Your task to perform on an android device: What is the recent news? Image 0: 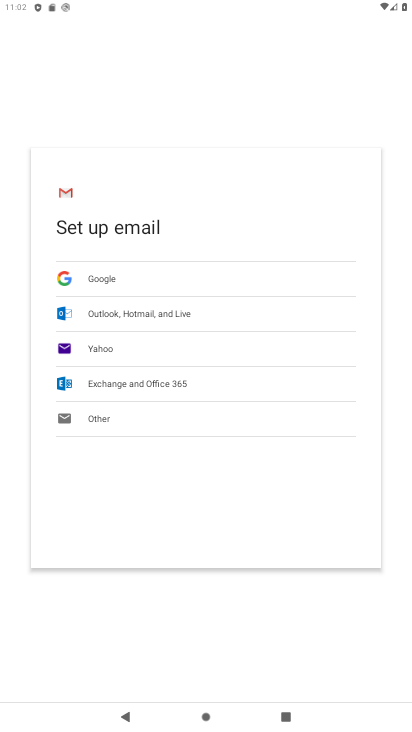
Step 0: press home button
Your task to perform on an android device: What is the recent news? Image 1: 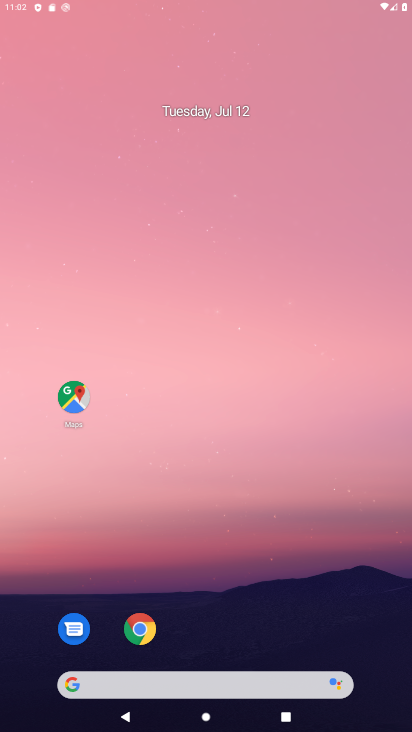
Step 1: drag from (328, 544) to (360, 129)
Your task to perform on an android device: What is the recent news? Image 2: 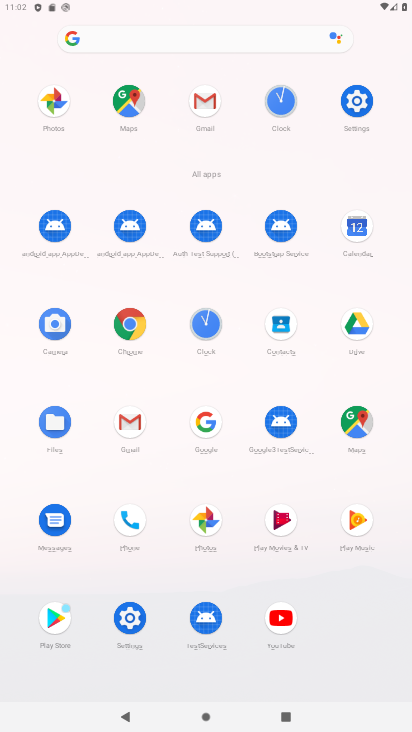
Step 2: click (131, 323)
Your task to perform on an android device: What is the recent news? Image 3: 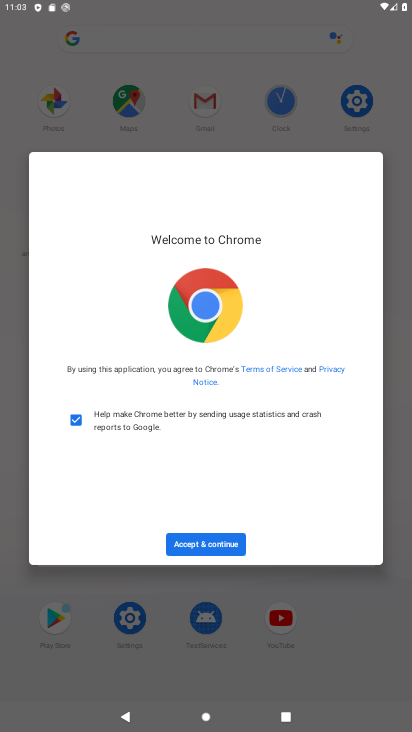
Step 3: click (185, 542)
Your task to perform on an android device: What is the recent news? Image 4: 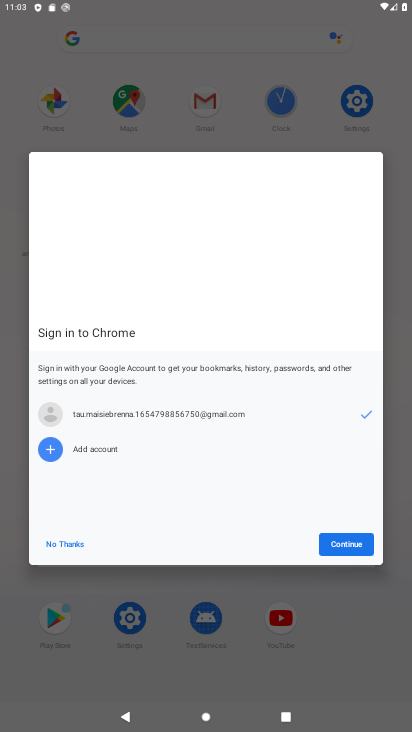
Step 4: click (70, 549)
Your task to perform on an android device: What is the recent news? Image 5: 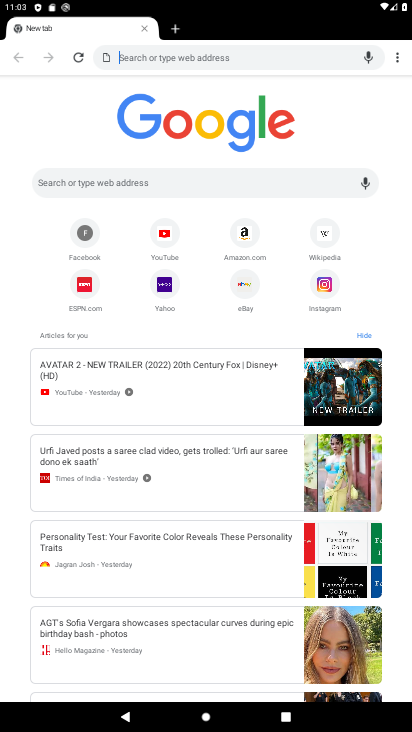
Step 5: task complete